Your task to perform on an android device: move an email to a new category in the gmail app Image 0: 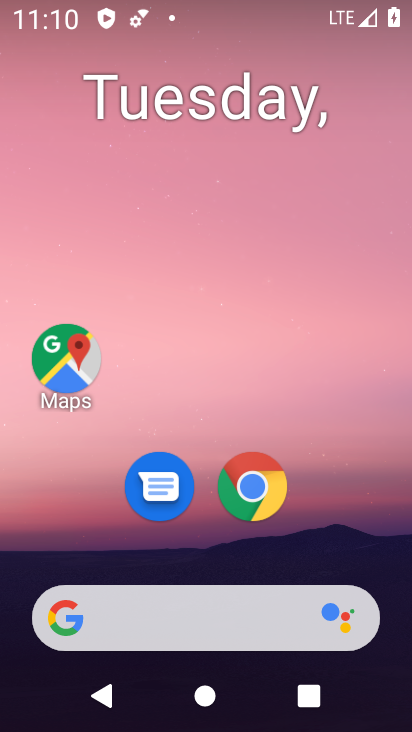
Step 0: drag from (370, 541) to (360, 97)
Your task to perform on an android device: move an email to a new category in the gmail app Image 1: 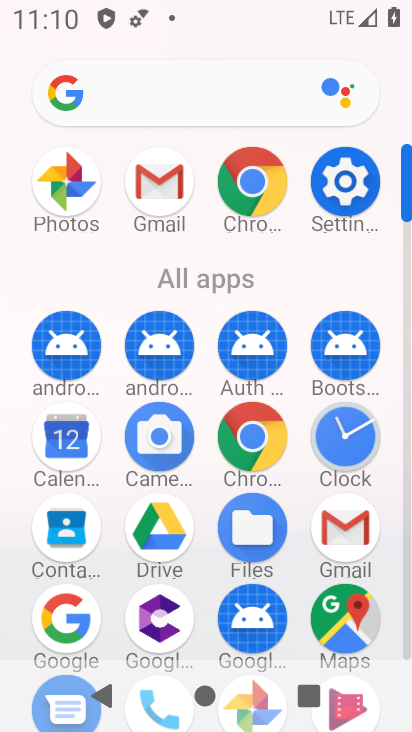
Step 1: click (349, 529)
Your task to perform on an android device: move an email to a new category in the gmail app Image 2: 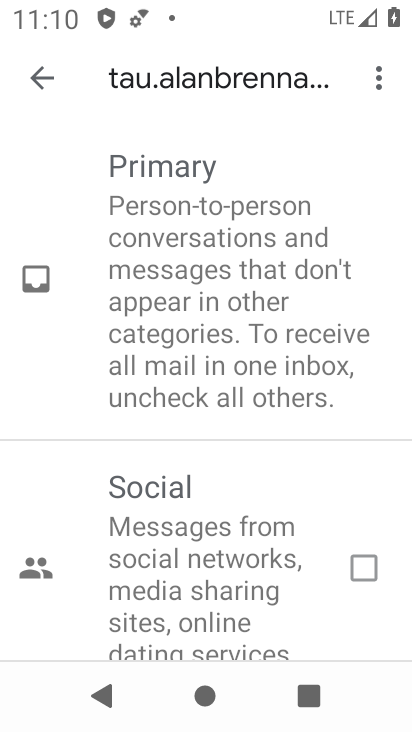
Step 2: task complete